Your task to perform on an android device: turn off notifications settings in the gmail app Image 0: 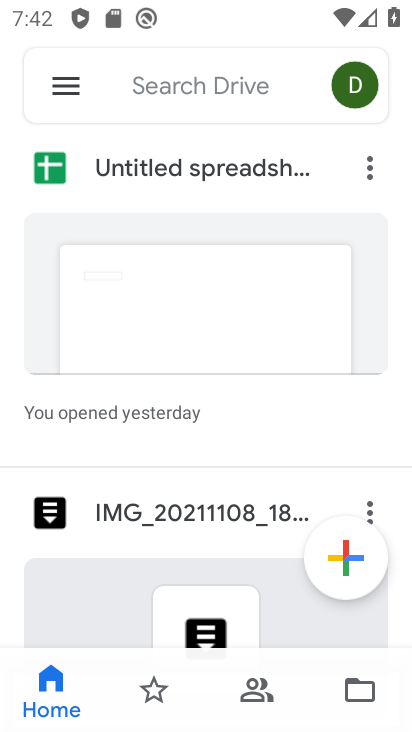
Step 0: press home button
Your task to perform on an android device: turn off notifications settings in the gmail app Image 1: 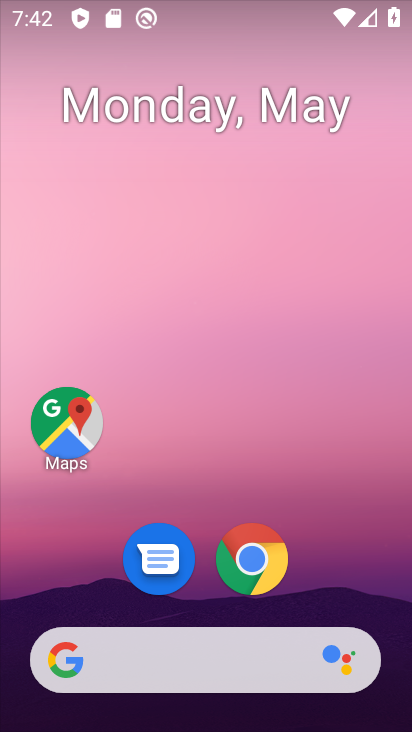
Step 1: drag from (336, 542) to (353, 129)
Your task to perform on an android device: turn off notifications settings in the gmail app Image 2: 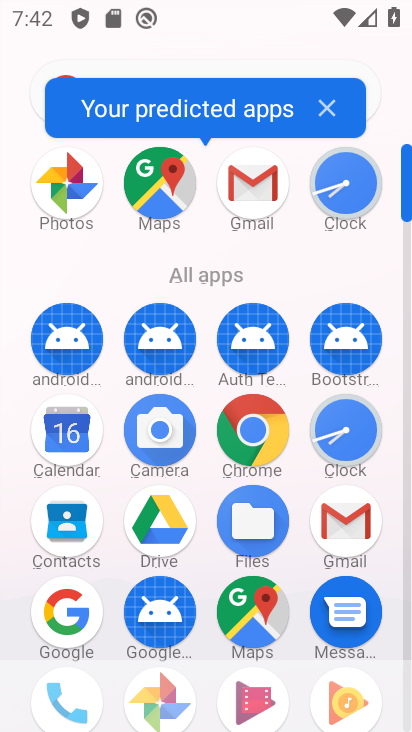
Step 2: click (406, 621)
Your task to perform on an android device: turn off notifications settings in the gmail app Image 3: 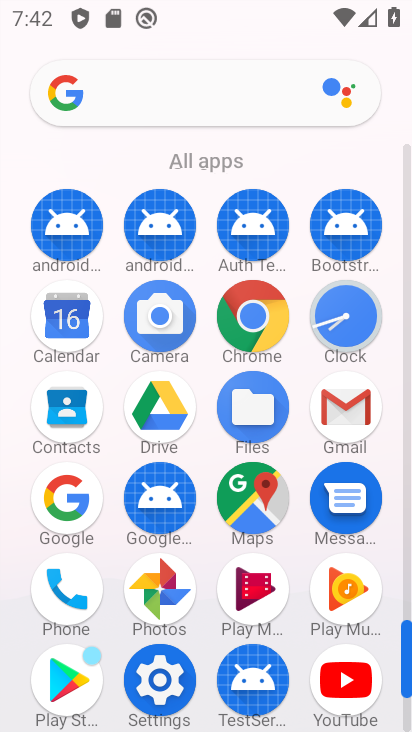
Step 3: click (350, 425)
Your task to perform on an android device: turn off notifications settings in the gmail app Image 4: 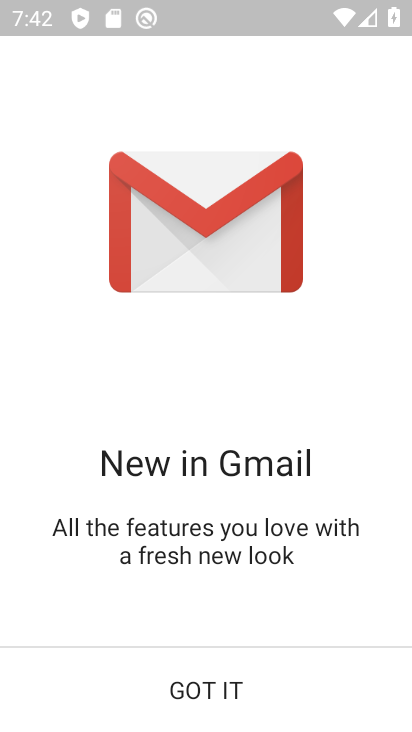
Step 4: click (193, 674)
Your task to perform on an android device: turn off notifications settings in the gmail app Image 5: 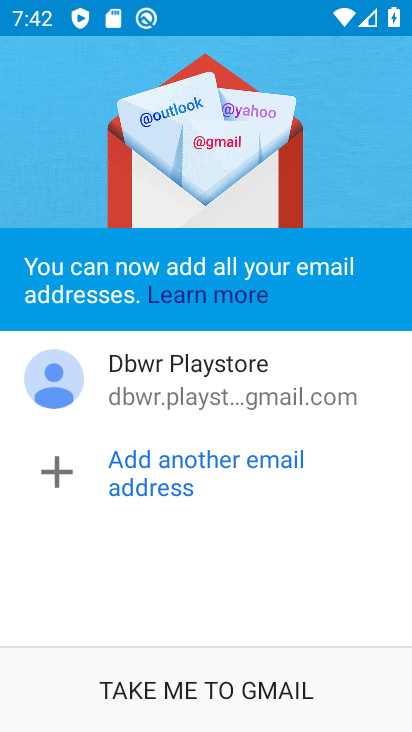
Step 5: click (193, 702)
Your task to perform on an android device: turn off notifications settings in the gmail app Image 6: 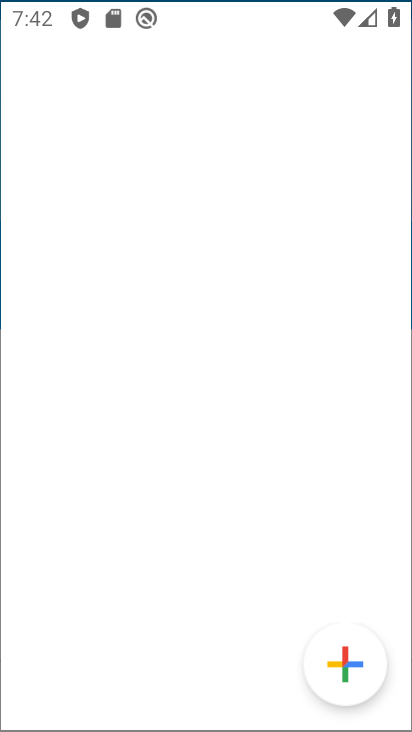
Step 6: click (193, 702)
Your task to perform on an android device: turn off notifications settings in the gmail app Image 7: 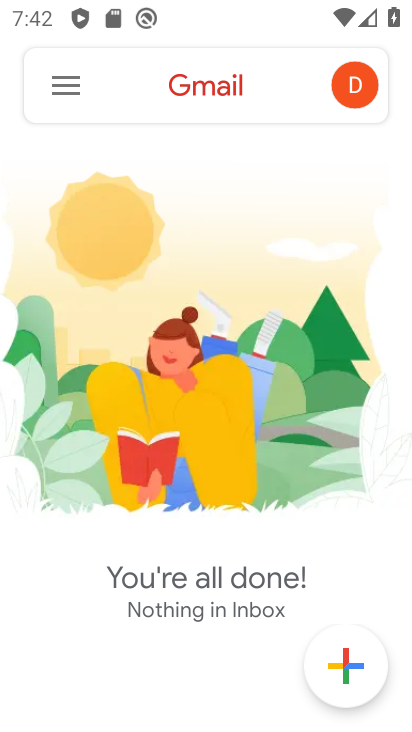
Step 7: click (43, 84)
Your task to perform on an android device: turn off notifications settings in the gmail app Image 8: 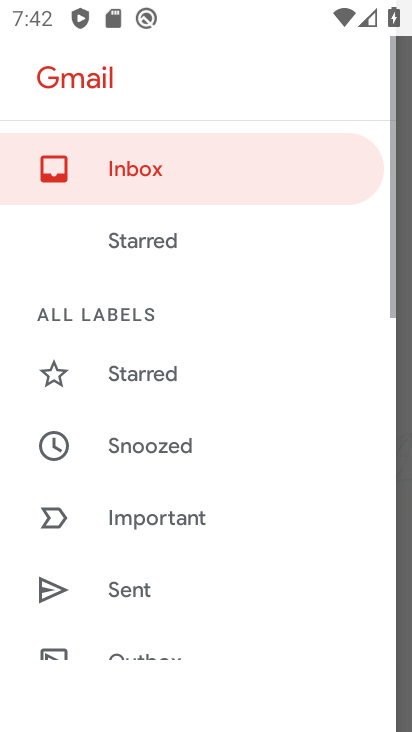
Step 8: drag from (129, 665) to (151, 279)
Your task to perform on an android device: turn off notifications settings in the gmail app Image 9: 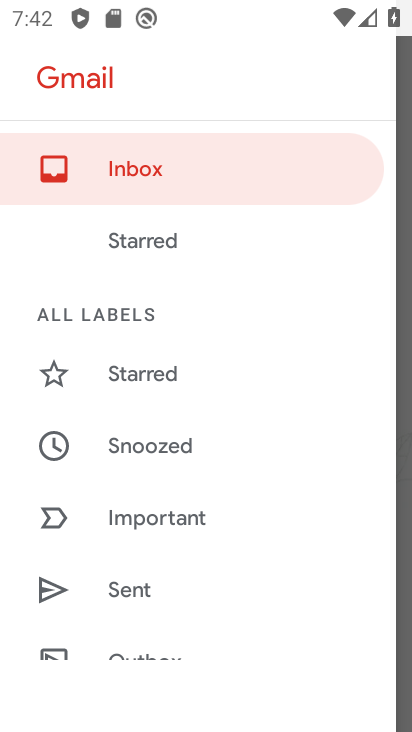
Step 9: drag from (218, 608) to (245, 243)
Your task to perform on an android device: turn off notifications settings in the gmail app Image 10: 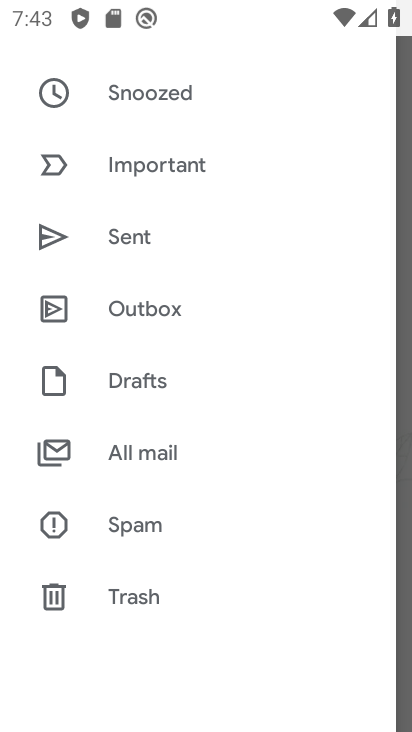
Step 10: drag from (202, 549) to (244, 288)
Your task to perform on an android device: turn off notifications settings in the gmail app Image 11: 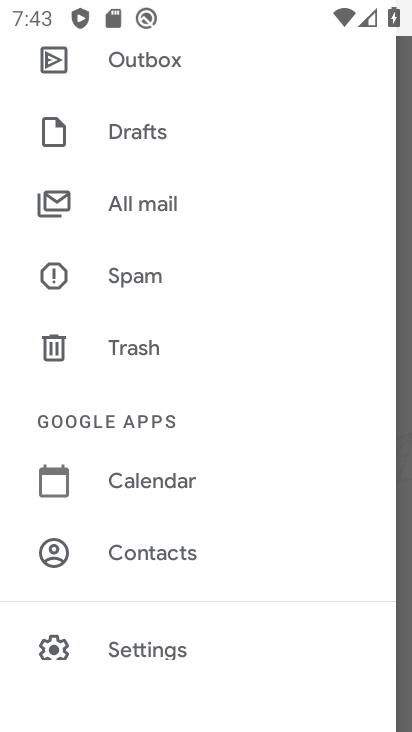
Step 11: click (169, 643)
Your task to perform on an android device: turn off notifications settings in the gmail app Image 12: 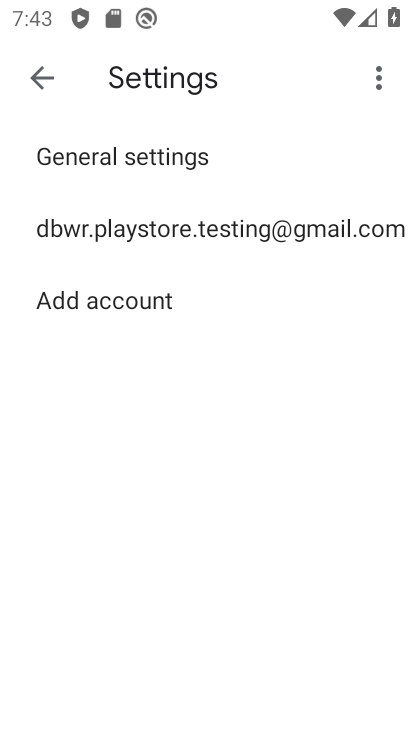
Step 12: click (132, 181)
Your task to perform on an android device: turn off notifications settings in the gmail app Image 13: 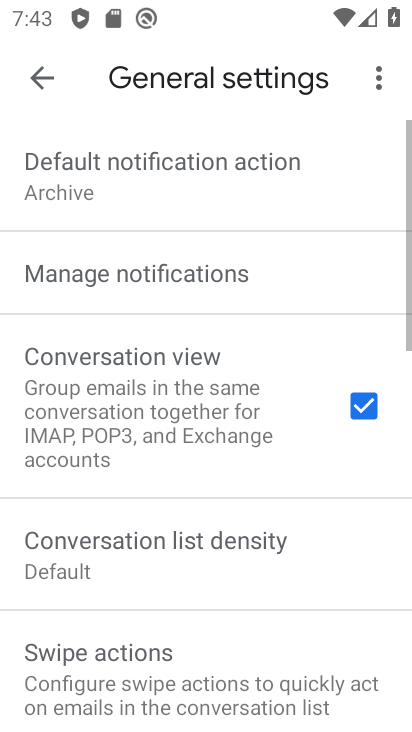
Step 13: click (118, 293)
Your task to perform on an android device: turn off notifications settings in the gmail app Image 14: 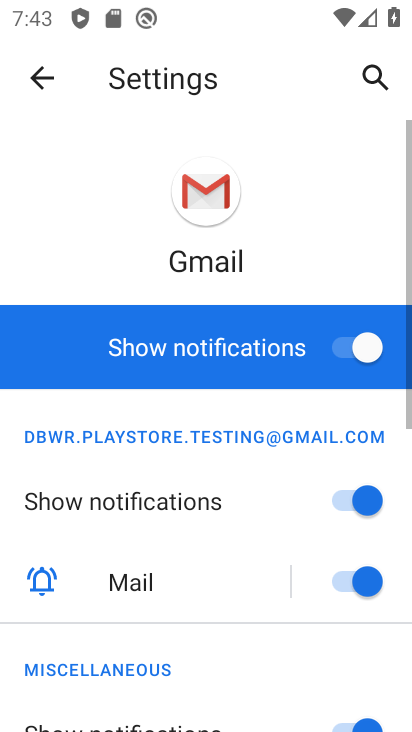
Step 14: click (338, 369)
Your task to perform on an android device: turn off notifications settings in the gmail app Image 15: 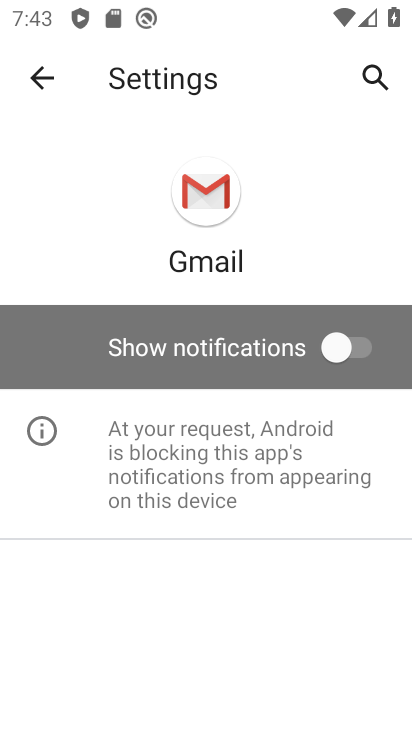
Step 15: task complete